Your task to perform on an android device: turn off location Image 0: 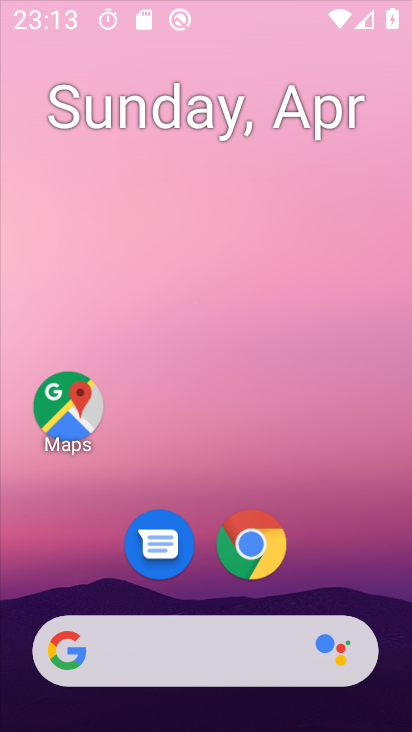
Step 0: click (351, 211)
Your task to perform on an android device: turn off location Image 1: 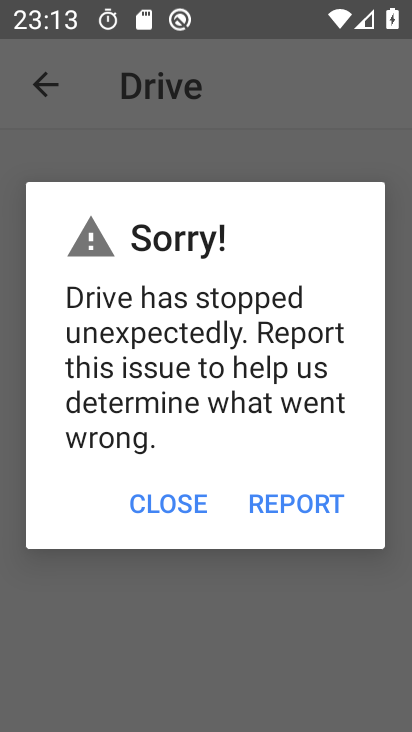
Step 1: press home button
Your task to perform on an android device: turn off location Image 2: 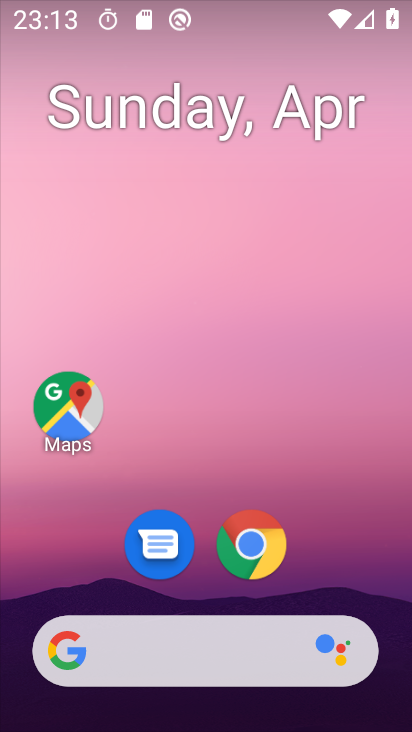
Step 2: drag from (315, 556) to (336, 169)
Your task to perform on an android device: turn off location Image 3: 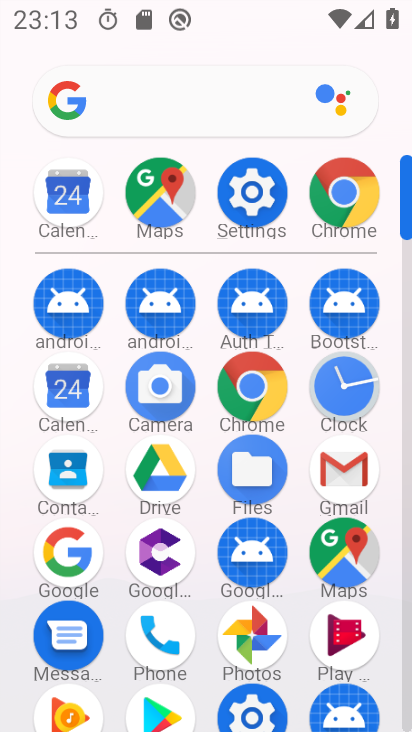
Step 3: click (258, 194)
Your task to perform on an android device: turn off location Image 4: 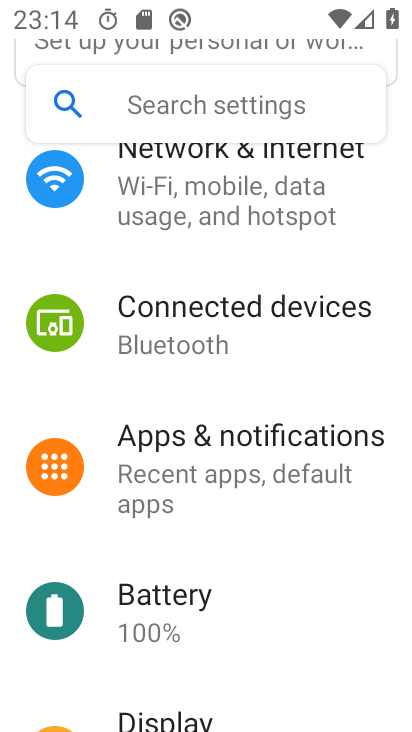
Step 4: drag from (234, 658) to (273, 164)
Your task to perform on an android device: turn off location Image 5: 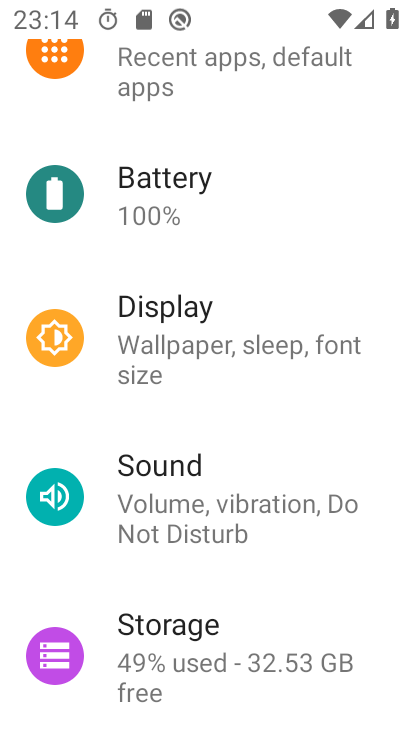
Step 5: drag from (219, 642) to (258, 172)
Your task to perform on an android device: turn off location Image 6: 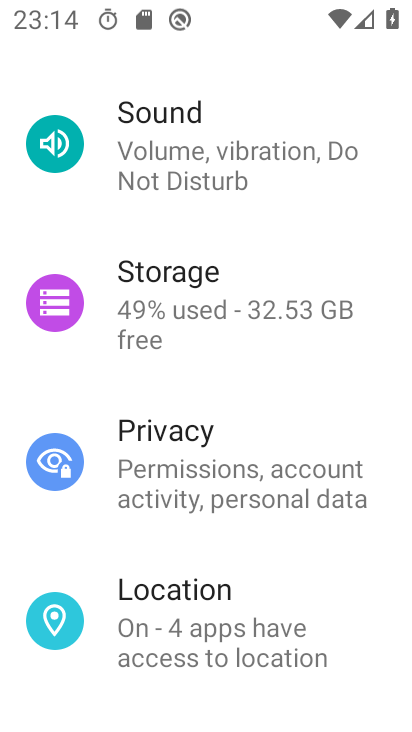
Step 6: click (195, 620)
Your task to perform on an android device: turn off location Image 7: 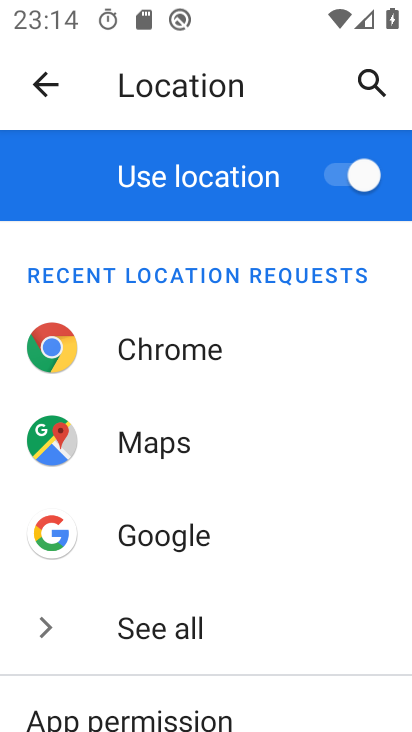
Step 7: click (327, 171)
Your task to perform on an android device: turn off location Image 8: 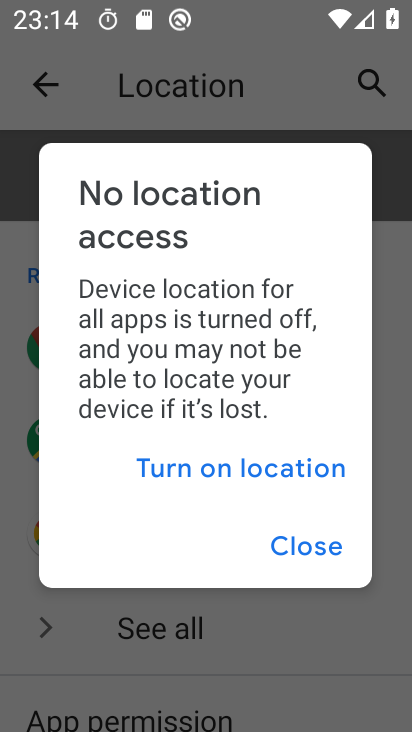
Step 8: task complete